Your task to perform on an android device: toggle pop-ups in chrome Image 0: 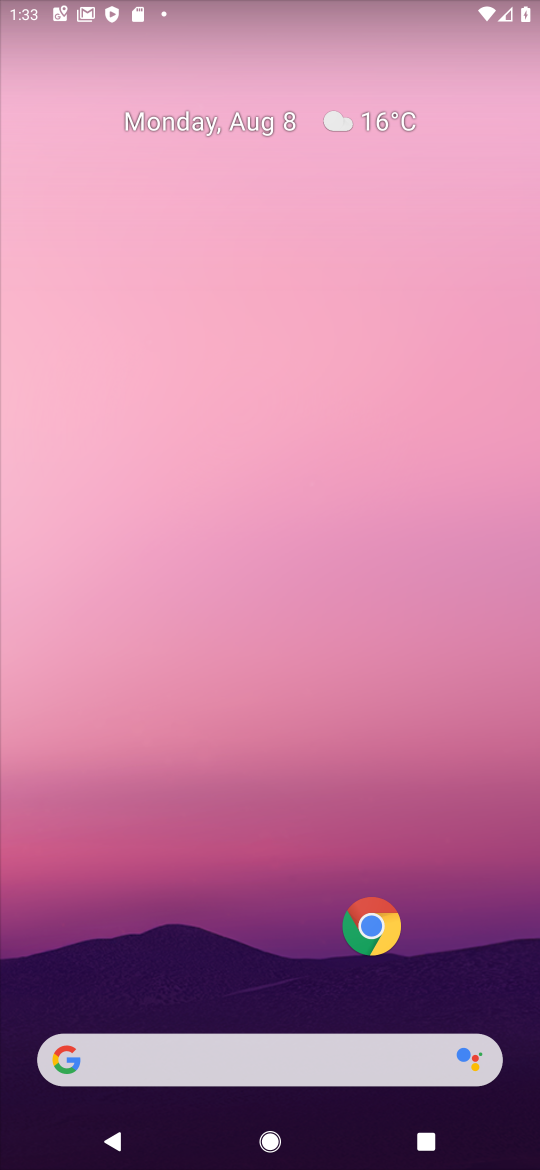
Step 0: drag from (364, 984) to (316, 274)
Your task to perform on an android device: toggle pop-ups in chrome Image 1: 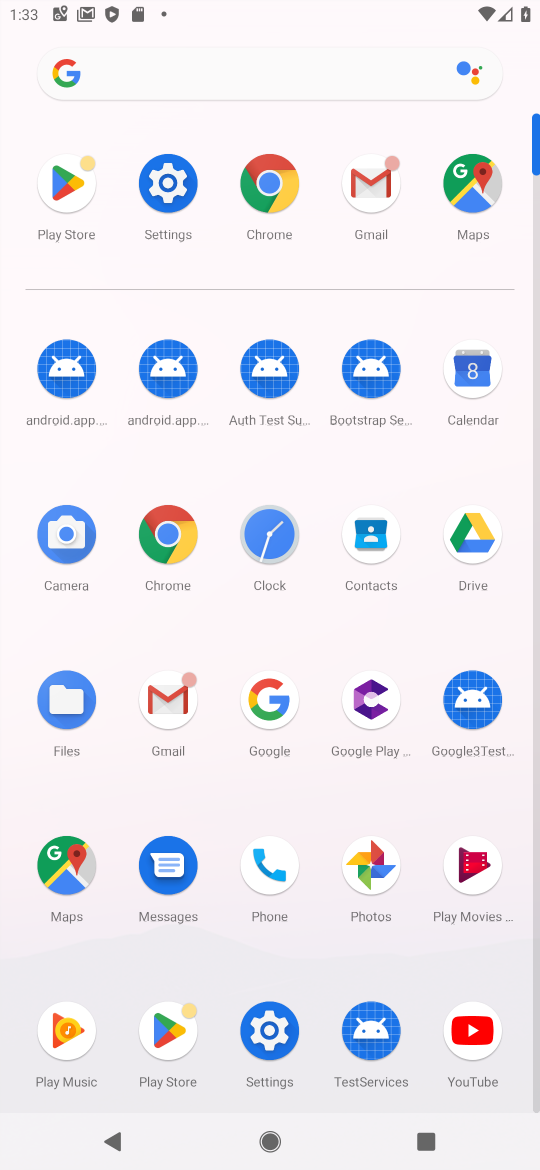
Step 1: click (172, 517)
Your task to perform on an android device: toggle pop-ups in chrome Image 2: 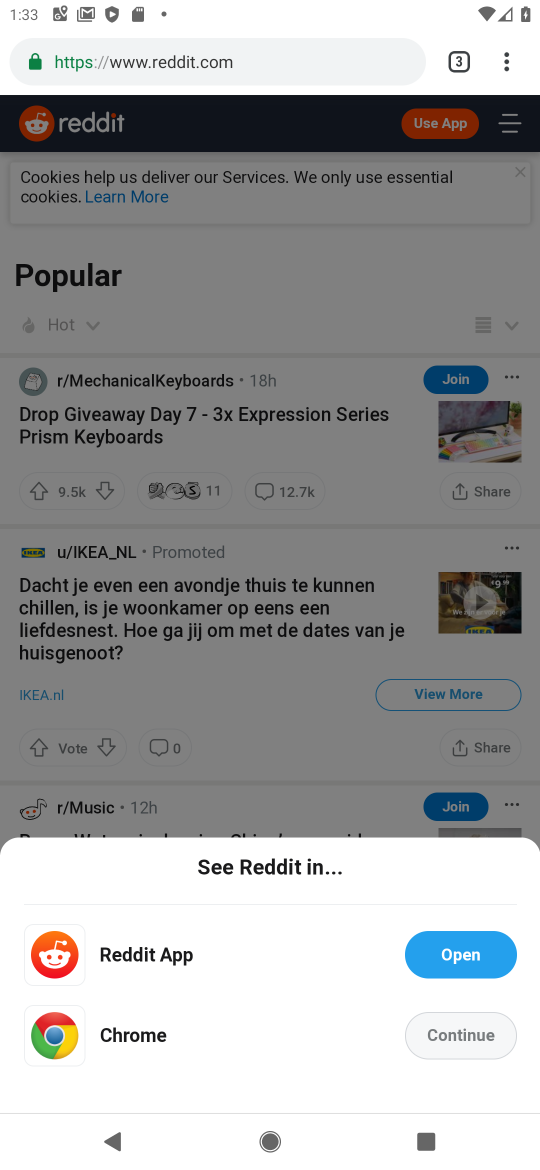
Step 2: click (510, 56)
Your task to perform on an android device: toggle pop-ups in chrome Image 3: 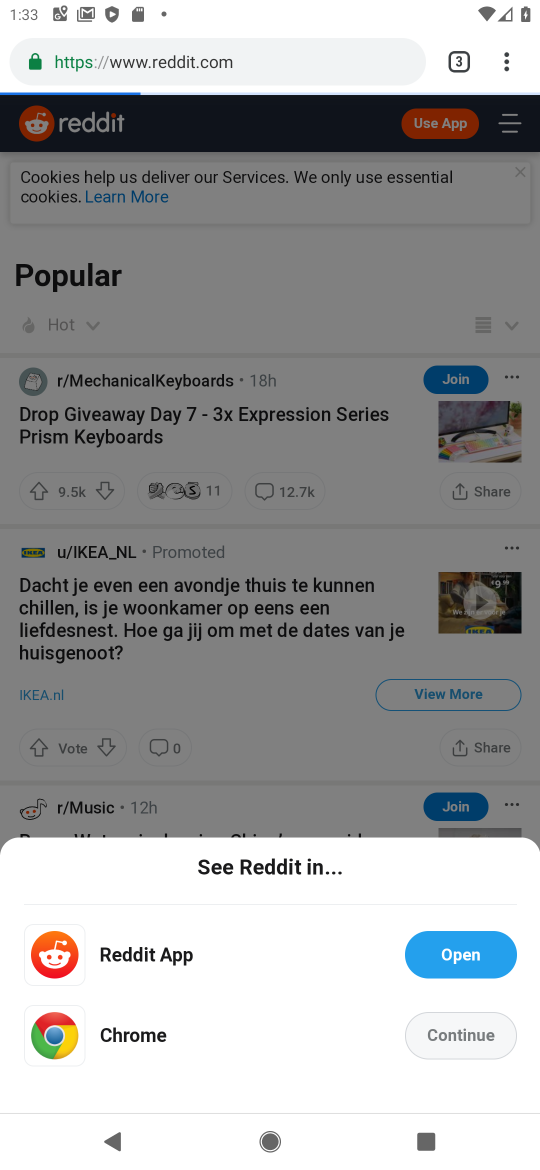
Step 3: click (510, 56)
Your task to perform on an android device: toggle pop-ups in chrome Image 4: 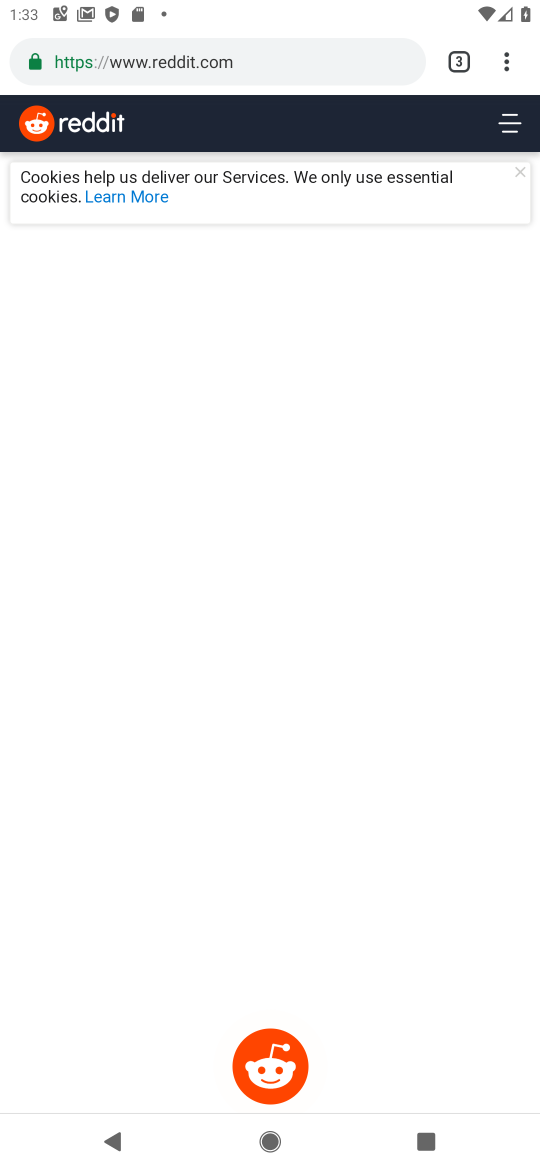
Step 4: click (501, 66)
Your task to perform on an android device: toggle pop-ups in chrome Image 5: 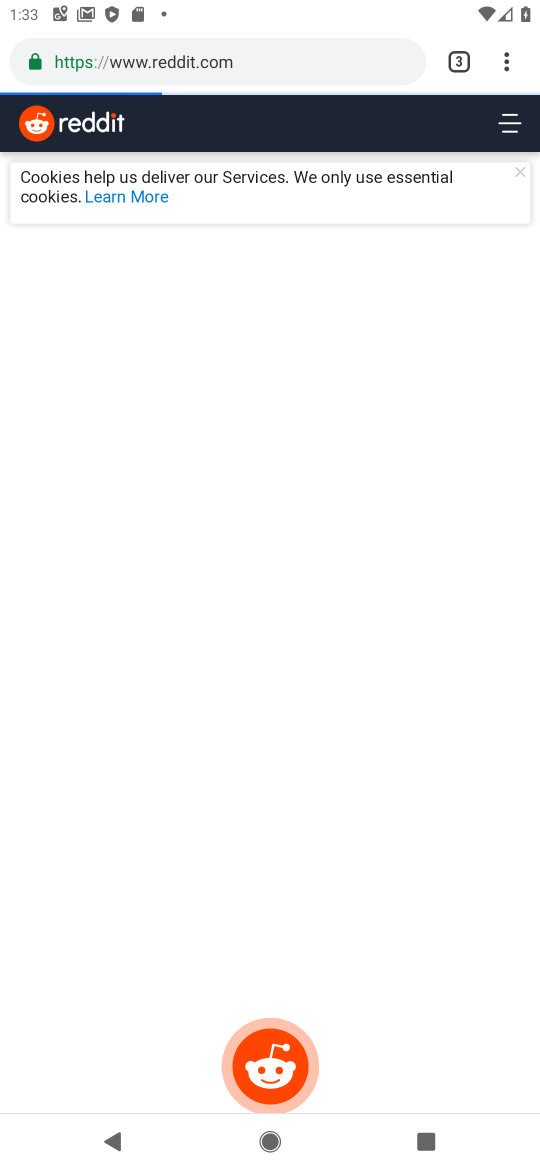
Step 5: click (521, 61)
Your task to perform on an android device: toggle pop-ups in chrome Image 6: 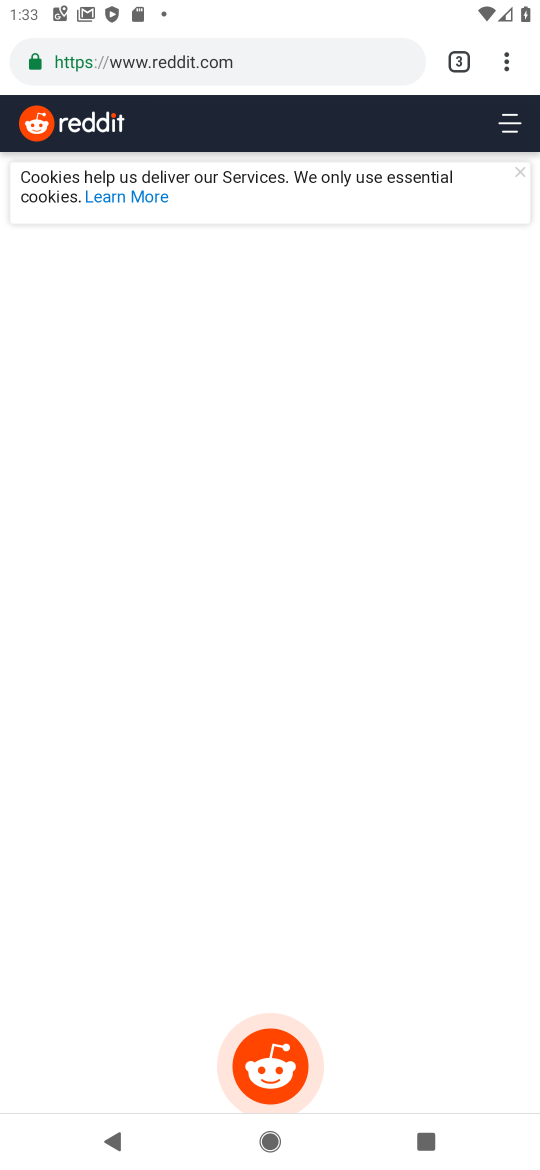
Step 6: click (526, 57)
Your task to perform on an android device: toggle pop-ups in chrome Image 7: 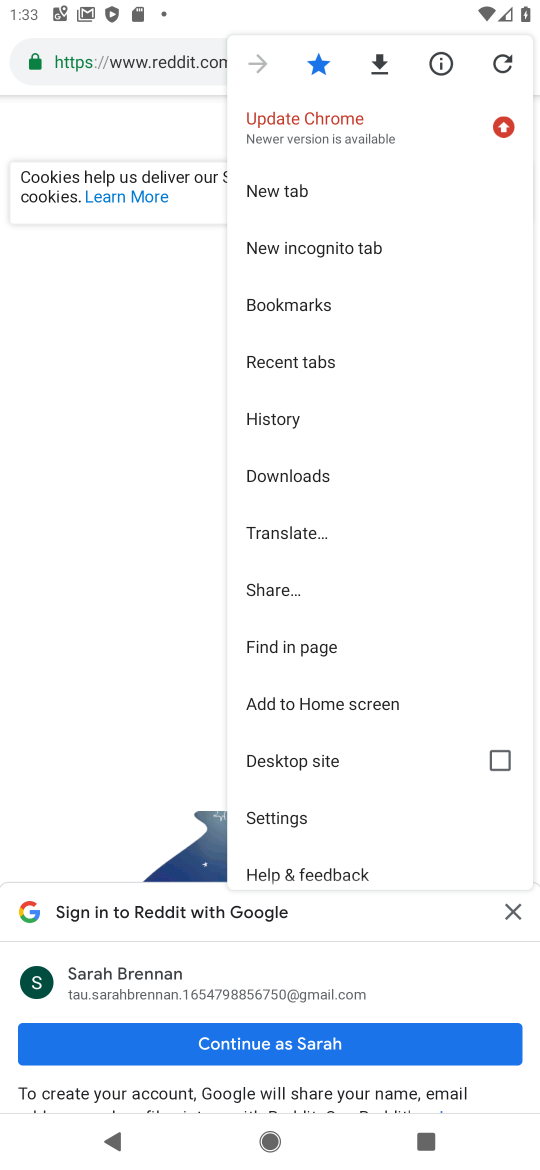
Step 7: click (324, 808)
Your task to perform on an android device: toggle pop-ups in chrome Image 8: 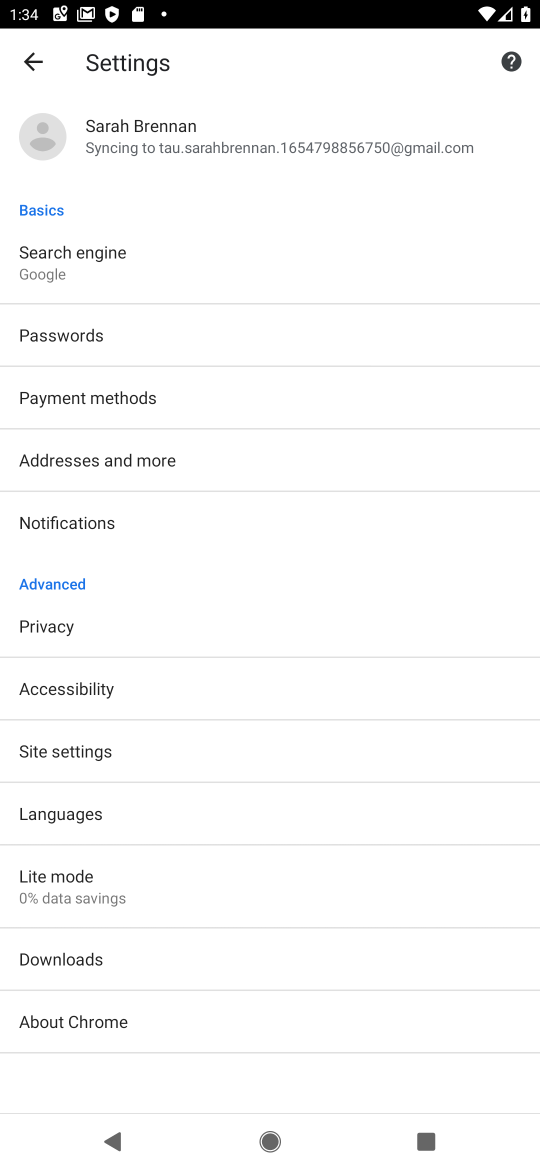
Step 8: click (200, 746)
Your task to perform on an android device: toggle pop-ups in chrome Image 9: 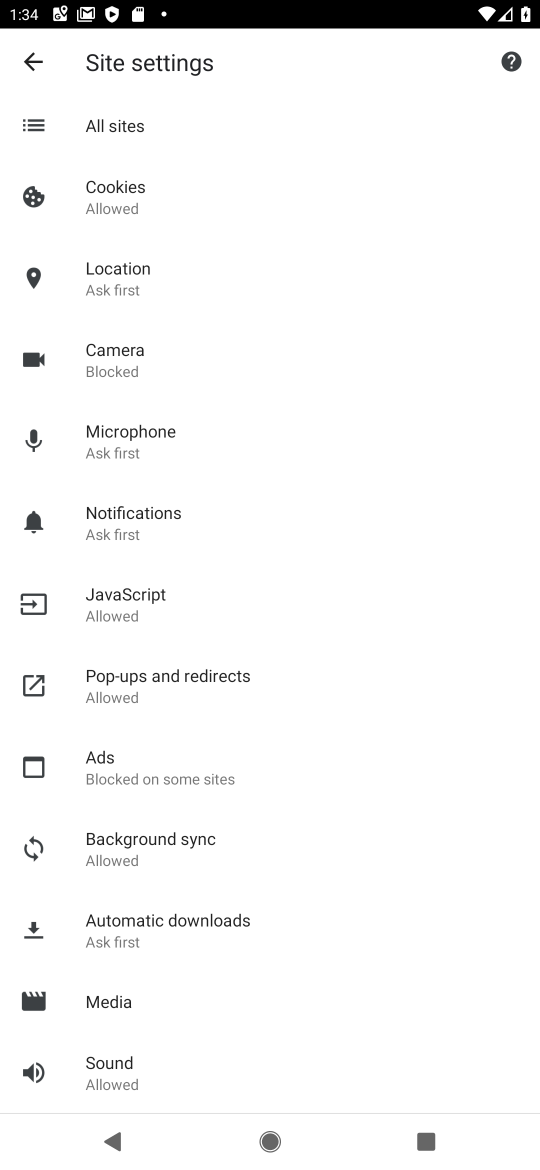
Step 9: click (206, 696)
Your task to perform on an android device: toggle pop-ups in chrome Image 10: 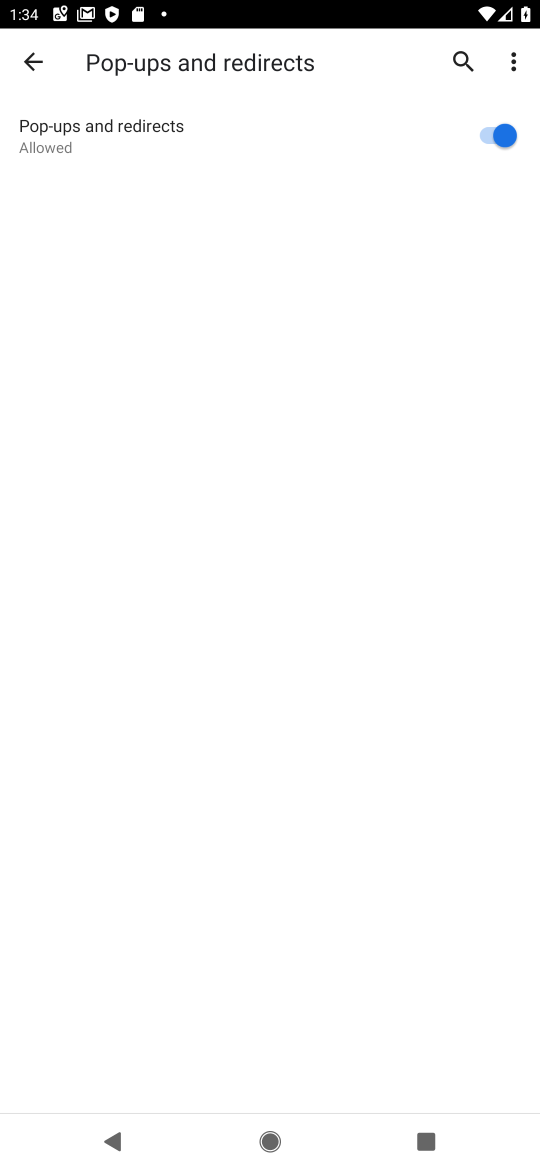
Step 10: task complete